Your task to perform on an android device: clear history in the chrome app Image 0: 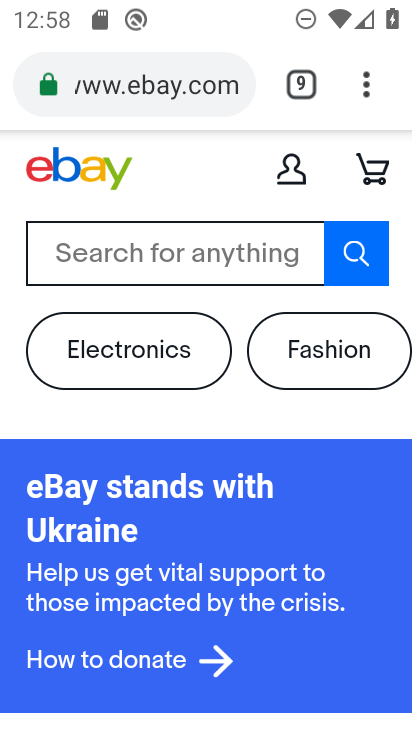
Step 0: press home button
Your task to perform on an android device: clear history in the chrome app Image 1: 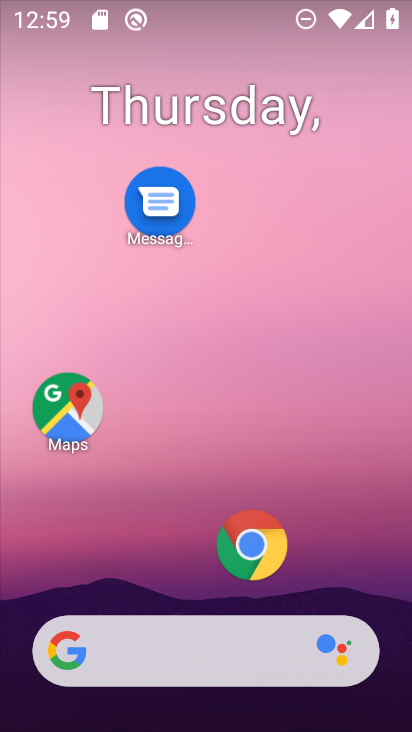
Step 1: click (281, 556)
Your task to perform on an android device: clear history in the chrome app Image 2: 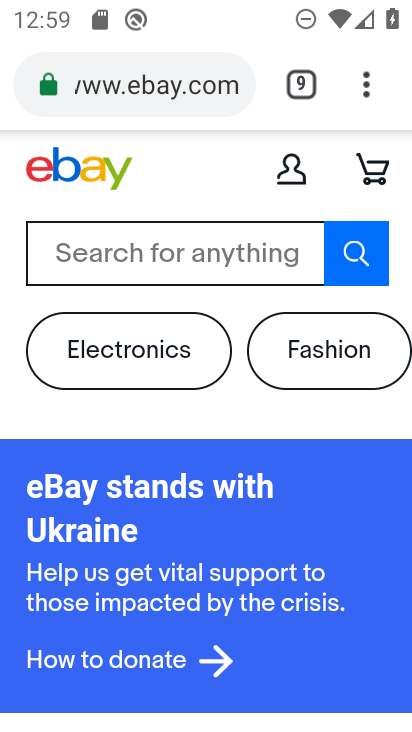
Step 2: drag from (370, 89) to (98, 468)
Your task to perform on an android device: clear history in the chrome app Image 3: 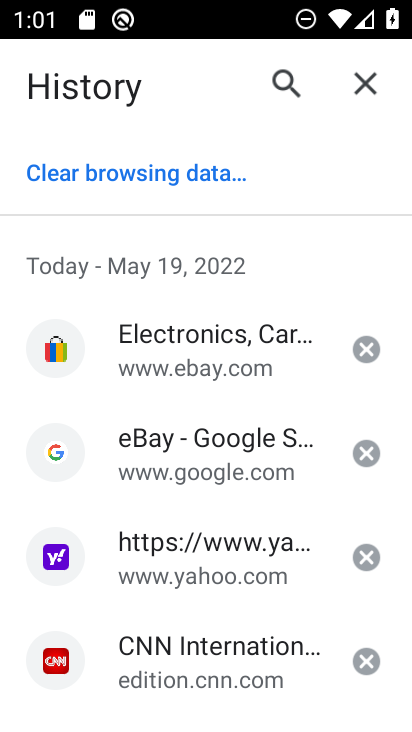
Step 3: click (169, 166)
Your task to perform on an android device: clear history in the chrome app Image 4: 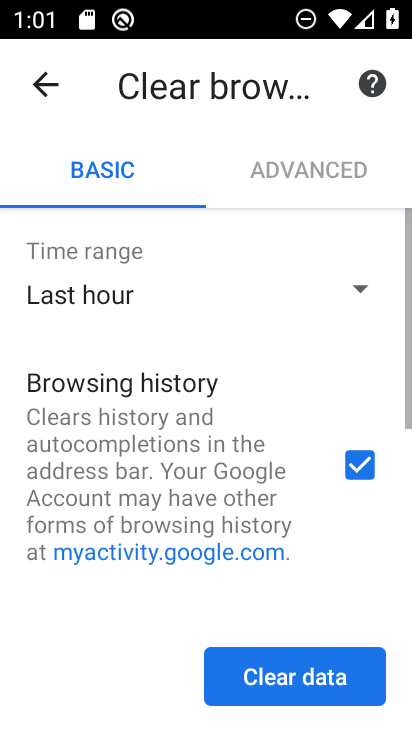
Step 4: click (289, 664)
Your task to perform on an android device: clear history in the chrome app Image 5: 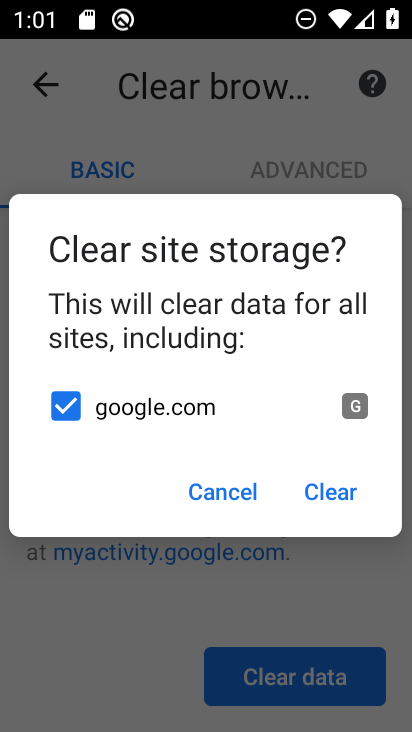
Step 5: click (348, 490)
Your task to perform on an android device: clear history in the chrome app Image 6: 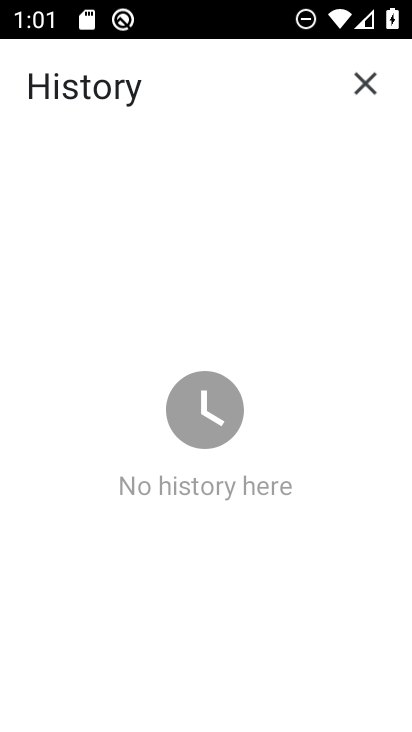
Step 6: task complete